Your task to perform on an android device: set the timer Image 0: 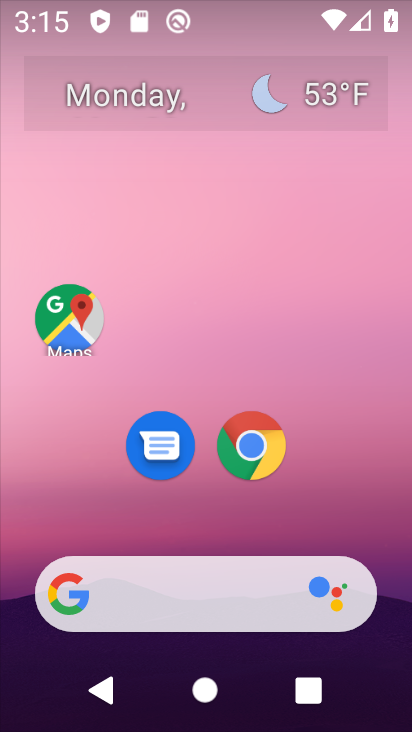
Step 0: drag from (206, 491) to (252, 4)
Your task to perform on an android device: set the timer Image 1: 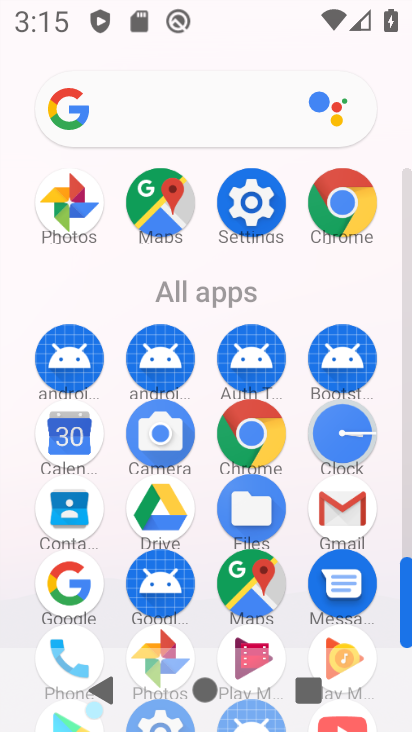
Step 1: click (254, 221)
Your task to perform on an android device: set the timer Image 2: 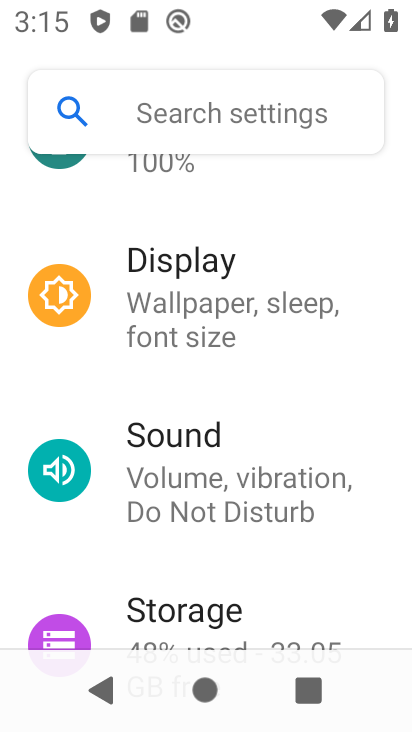
Step 2: press home button
Your task to perform on an android device: set the timer Image 3: 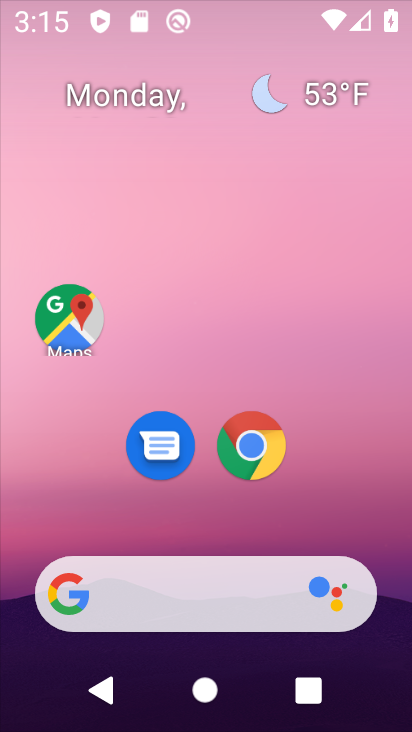
Step 3: drag from (264, 476) to (288, 14)
Your task to perform on an android device: set the timer Image 4: 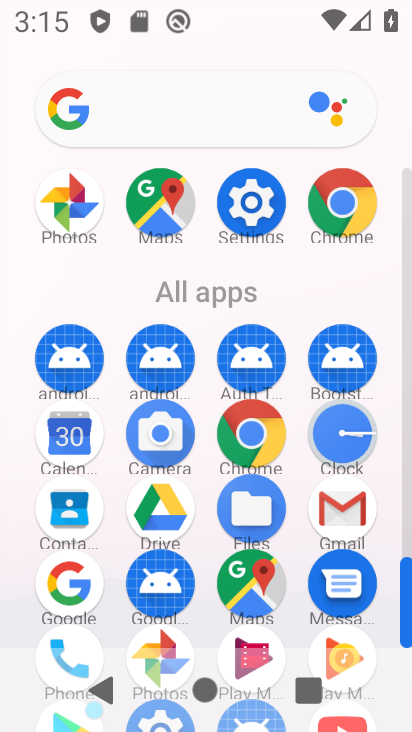
Step 4: click (339, 432)
Your task to perform on an android device: set the timer Image 5: 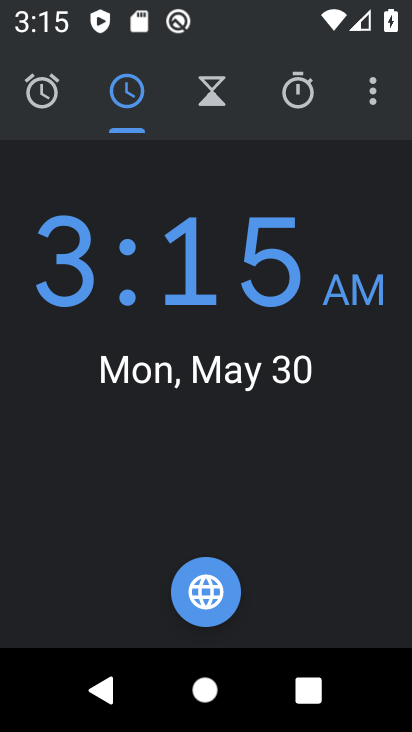
Step 5: click (233, 108)
Your task to perform on an android device: set the timer Image 6: 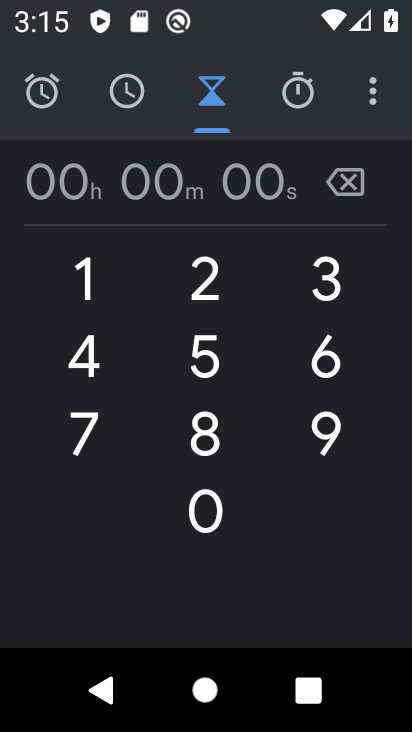
Step 6: click (318, 356)
Your task to perform on an android device: set the timer Image 7: 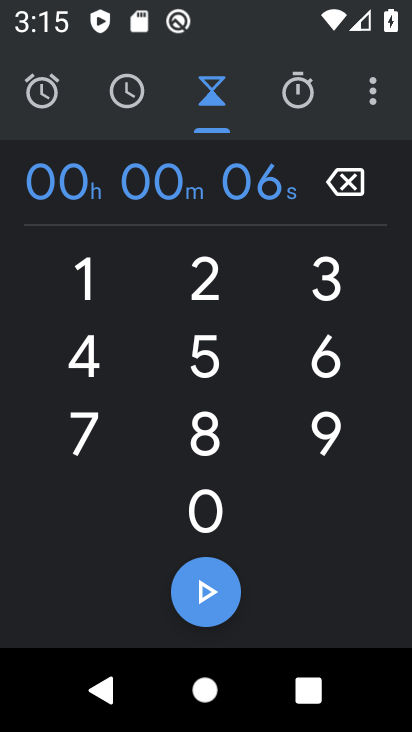
Step 7: click (204, 359)
Your task to perform on an android device: set the timer Image 8: 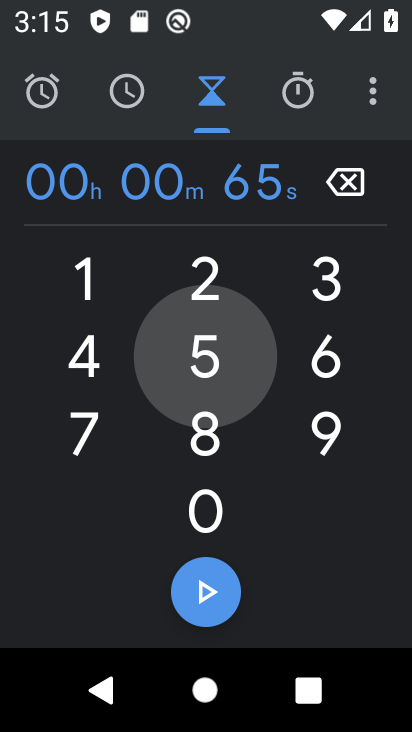
Step 8: click (69, 423)
Your task to perform on an android device: set the timer Image 9: 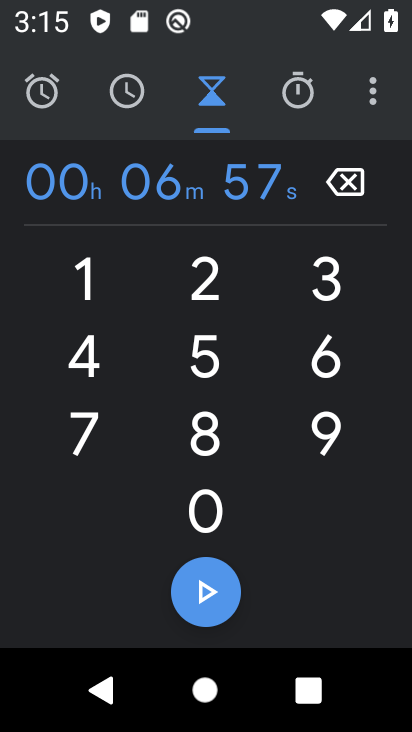
Step 9: click (222, 604)
Your task to perform on an android device: set the timer Image 10: 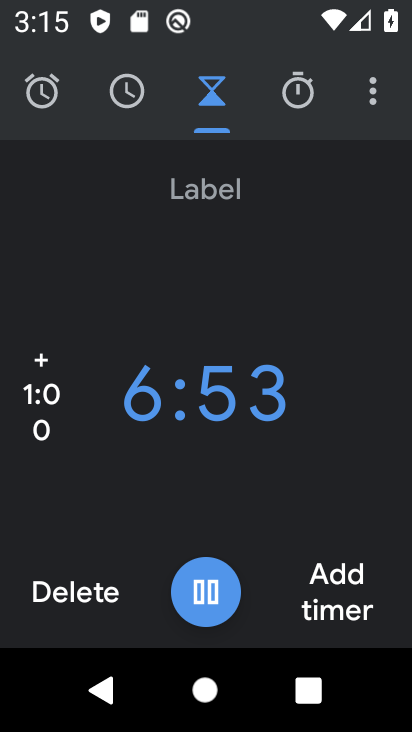
Step 10: task complete